Your task to perform on an android device: set the timer Image 0: 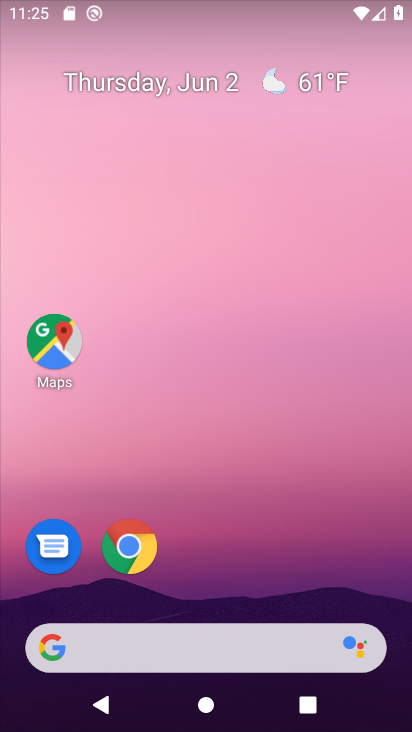
Step 0: drag from (361, 559) to (308, 247)
Your task to perform on an android device: set the timer Image 1: 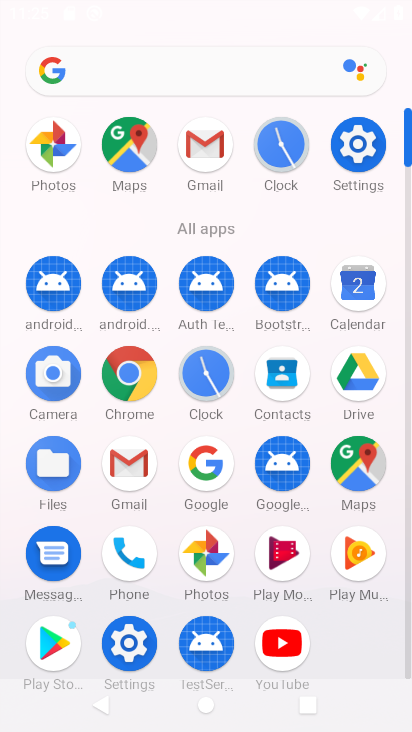
Step 1: drag from (351, 590) to (332, 236)
Your task to perform on an android device: set the timer Image 2: 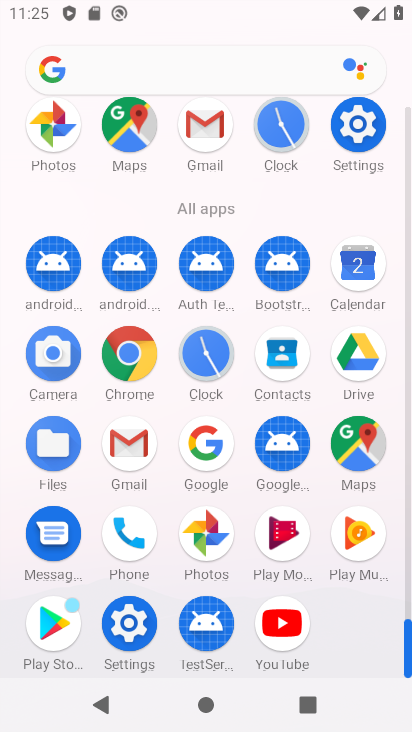
Step 2: click (217, 352)
Your task to perform on an android device: set the timer Image 3: 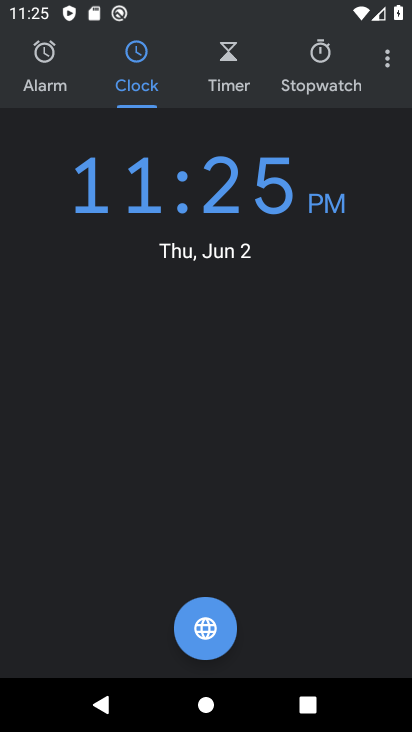
Step 3: click (386, 63)
Your task to perform on an android device: set the timer Image 4: 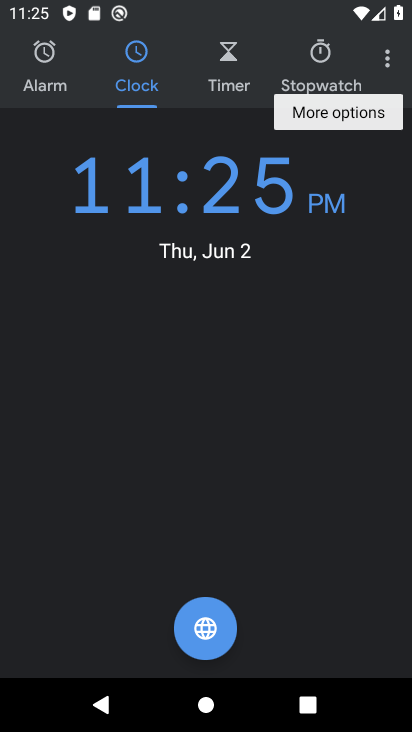
Step 4: click (385, 66)
Your task to perform on an android device: set the timer Image 5: 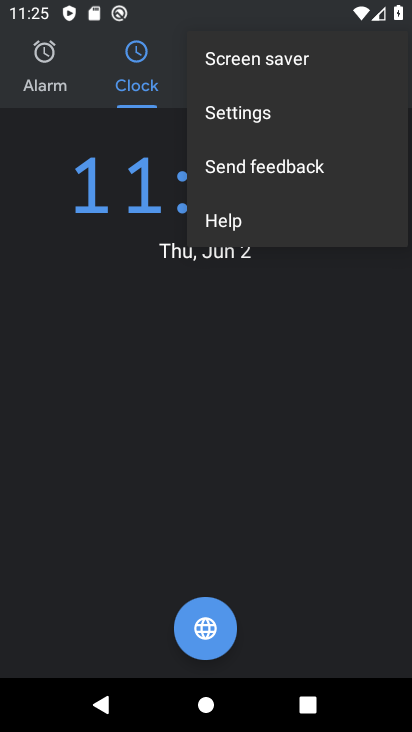
Step 5: click (270, 127)
Your task to perform on an android device: set the timer Image 6: 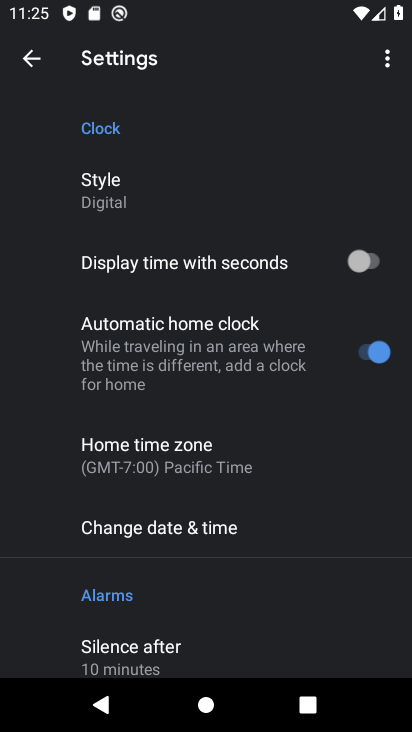
Step 6: drag from (285, 553) to (261, 287)
Your task to perform on an android device: set the timer Image 7: 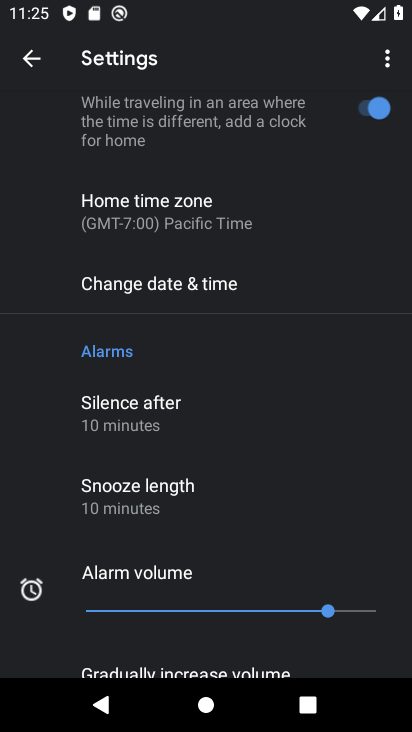
Step 7: drag from (244, 557) to (240, 251)
Your task to perform on an android device: set the timer Image 8: 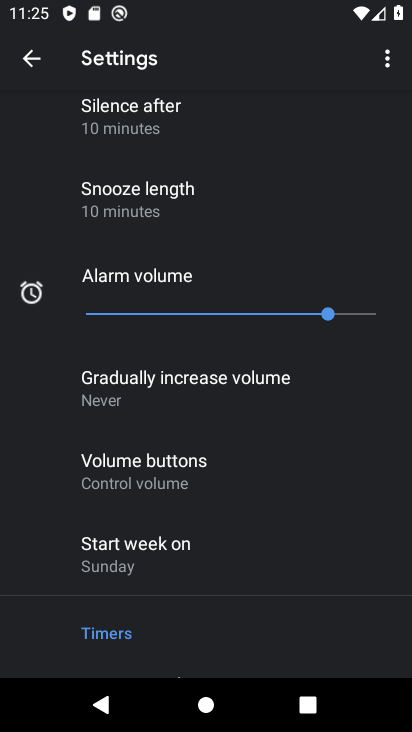
Step 8: drag from (237, 576) to (245, 291)
Your task to perform on an android device: set the timer Image 9: 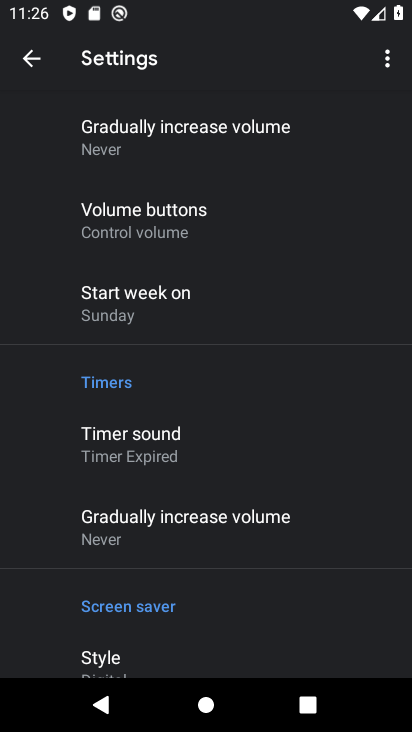
Step 9: drag from (249, 103) to (241, 685)
Your task to perform on an android device: set the timer Image 10: 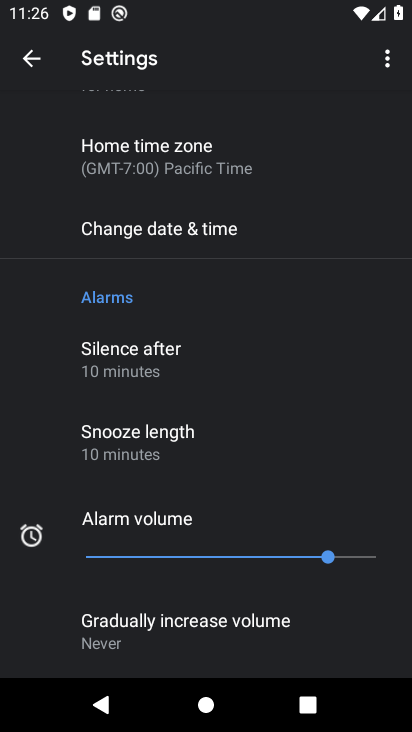
Step 10: drag from (243, 116) to (253, 458)
Your task to perform on an android device: set the timer Image 11: 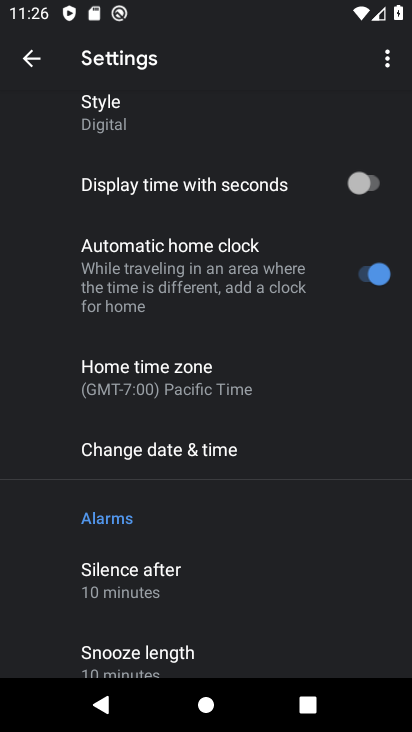
Step 11: click (41, 59)
Your task to perform on an android device: set the timer Image 12: 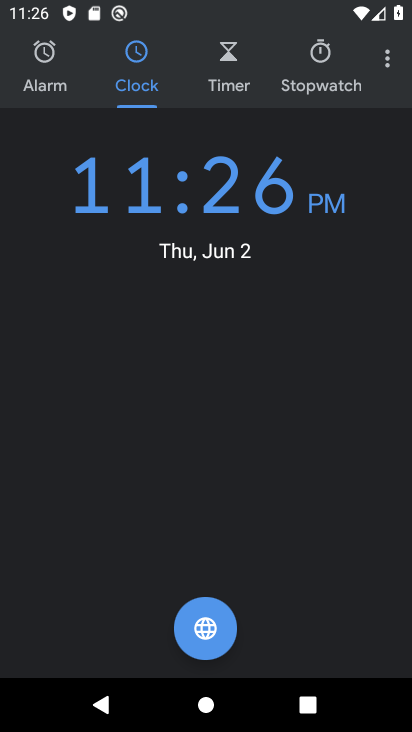
Step 12: click (225, 69)
Your task to perform on an android device: set the timer Image 13: 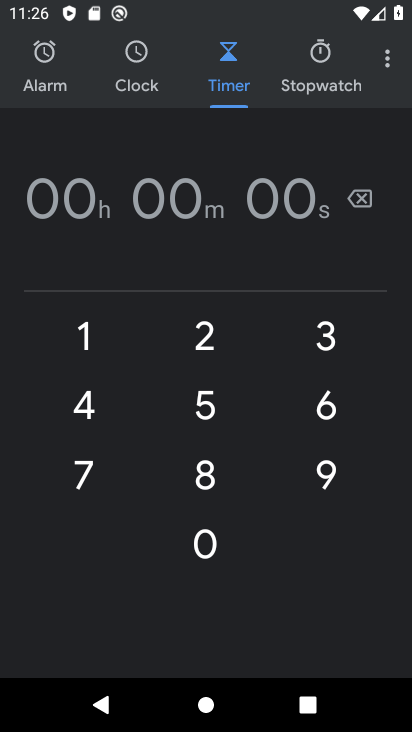
Step 13: click (76, 320)
Your task to perform on an android device: set the timer Image 14: 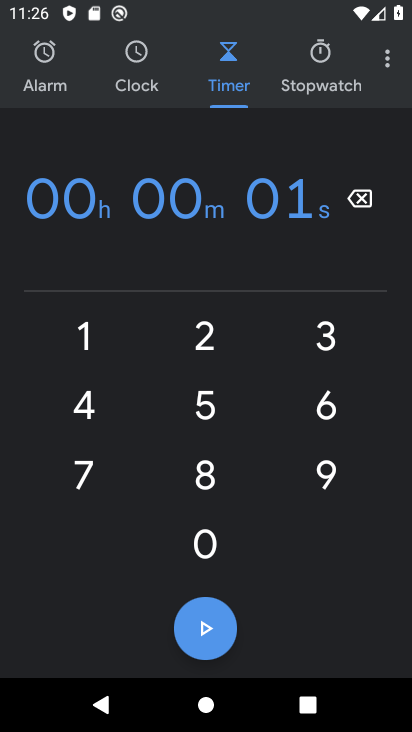
Step 14: click (195, 407)
Your task to perform on an android device: set the timer Image 15: 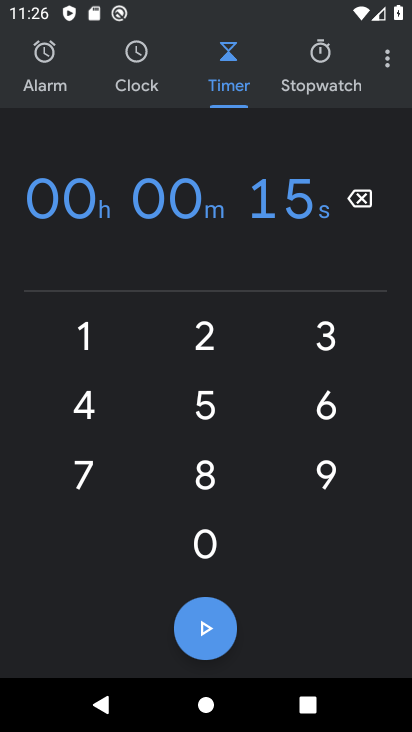
Step 15: task complete